Your task to perform on an android device: move an email to a new category in the gmail app Image 0: 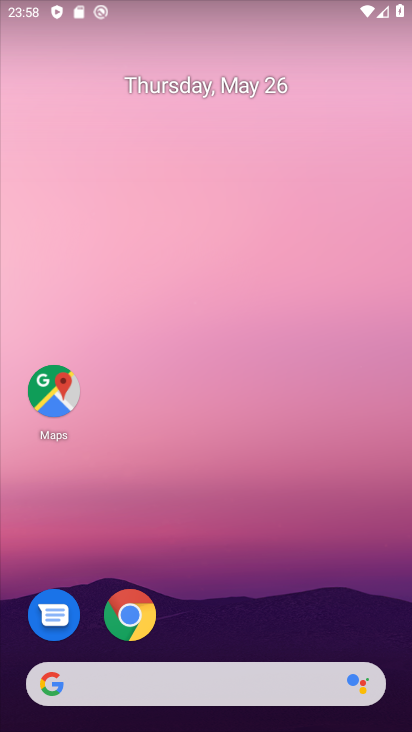
Step 0: press home button
Your task to perform on an android device: move an email to a new category in the gmail app Image 1: 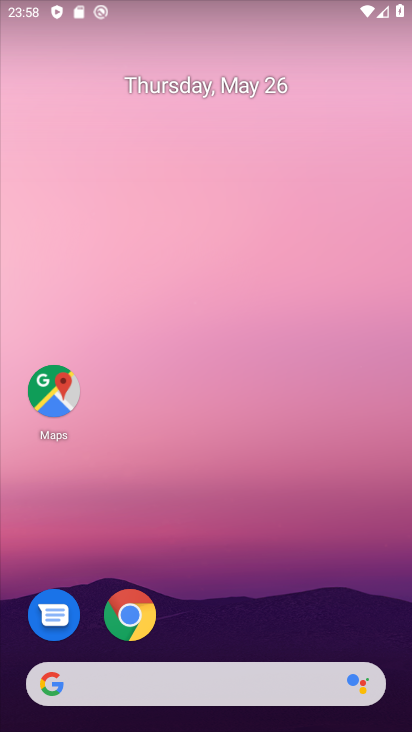
Step 1: drag from (295, 643) to (305, 124)
Your task to perform on an android device: move an email to a new category in the gmail app Image 2: 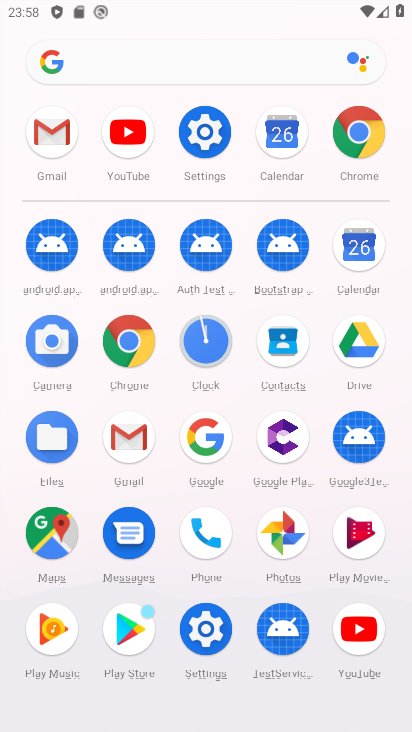
Step 2: click (78, 126)
Your task to perform on an android device: move an email to a new category in the gmail app Image 3: 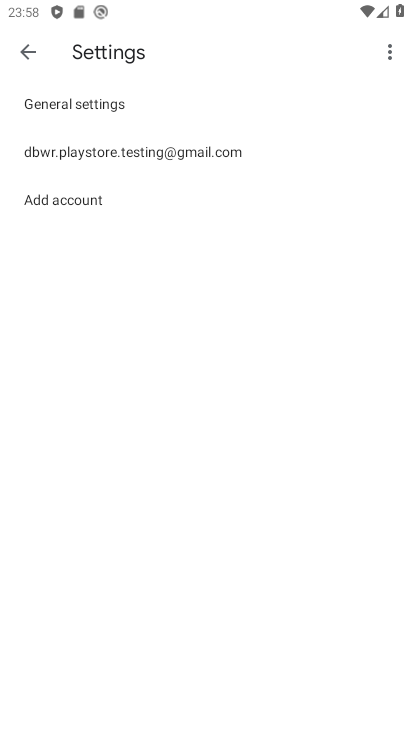
Step 3: click (43, 66)
Your task to perform on an android device: move an email to a new category in the gmail app Image 4: 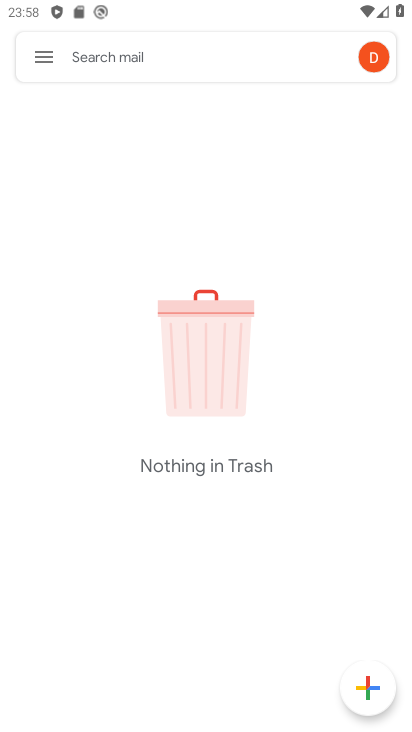
Step 4: click (43, 66)
Your task to perform on an android device: move an email to a new category in the gmail app Image 5: 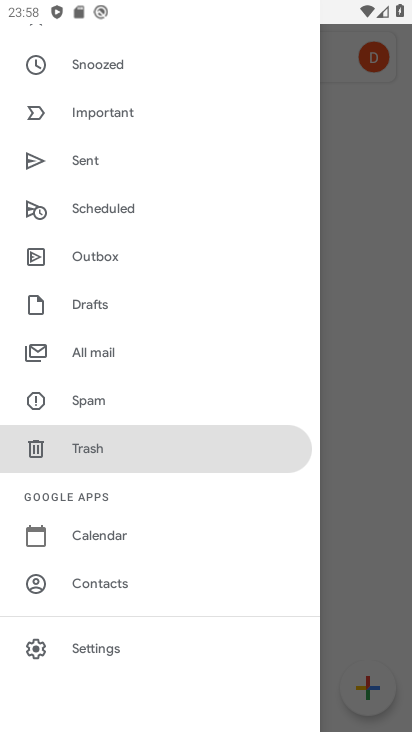
Step 5: task complete